Your task to perform on an android device: Search for vegetarian restaurants on Maps Image 0: 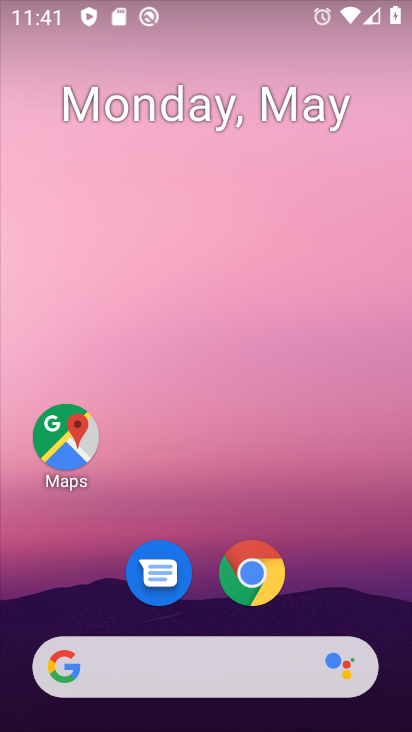
Step 0: click (67, 447)
Your task to perform on an android device: Search for vegetarian restaurants on Maps Image 1: 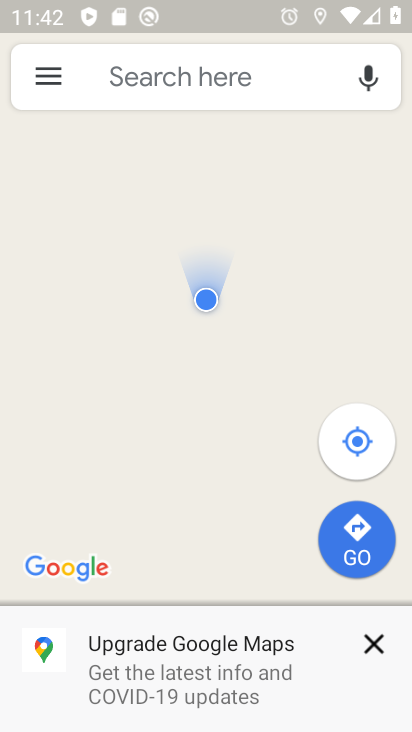
Step 1: click (158, 67)
Your task to perform on an android device: Search for vegetarian restaurants on Maps Image 2: 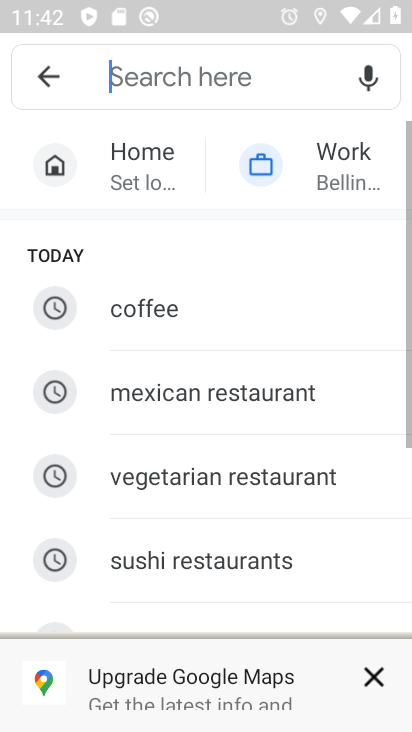
Step 2: click (158, 80)
Your task to perform on an android device: Search for vegetarian restaurants on Maps Image 3: 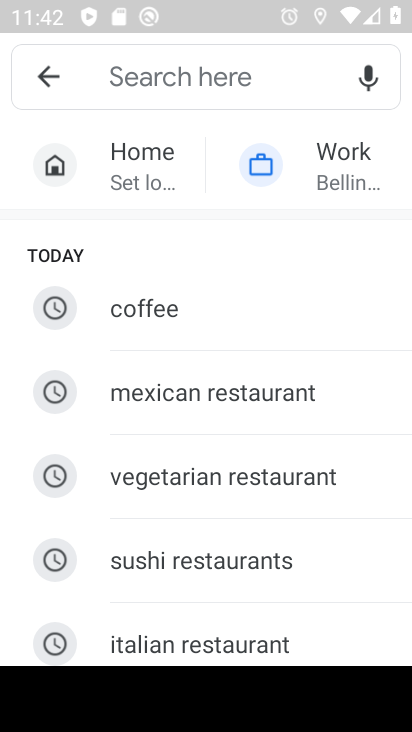
Step 3: click (207, 487)
Your task to perform on an android device: Search for vegetarian restaurants on Maps Image 4: 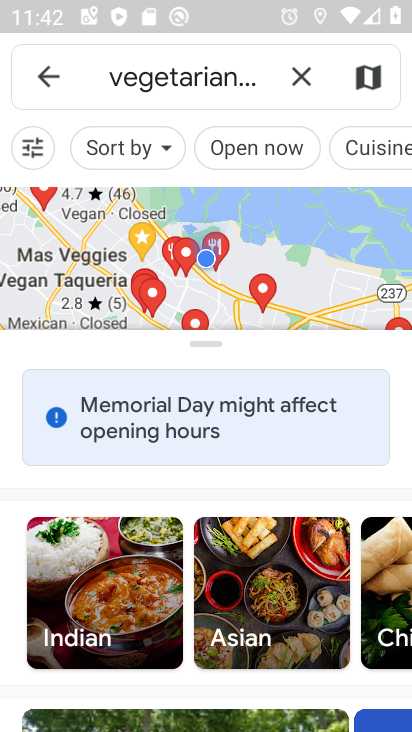
Step 4: task complete